Your task to perform on an android device: find photos in the google photos app Image 0: 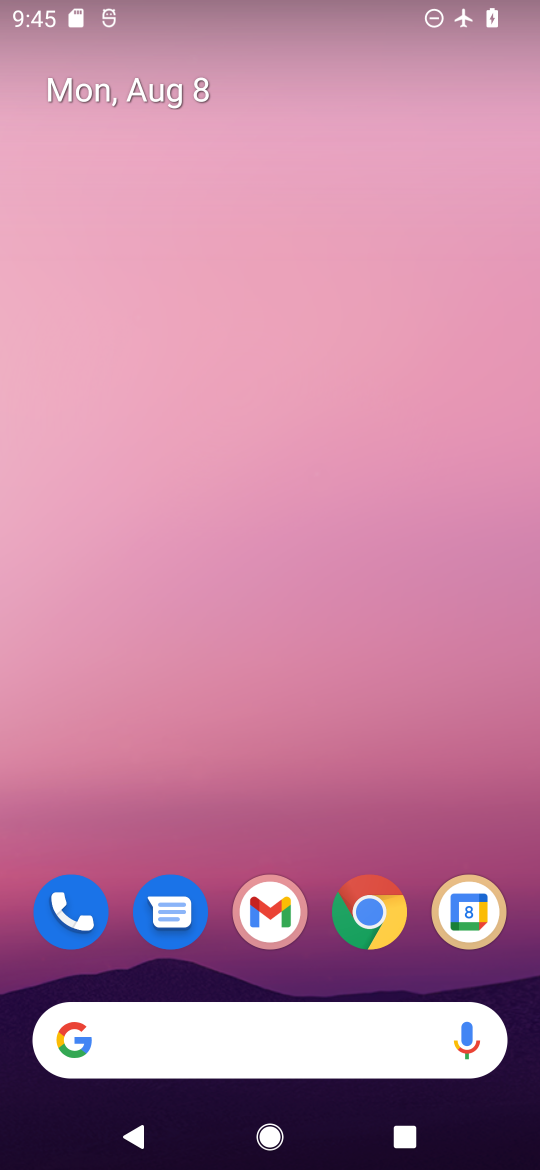
Step 0: drag from (522, 940) to (291, 10)
Your task to perform on an android device: find photos in the google photos app Image 1: 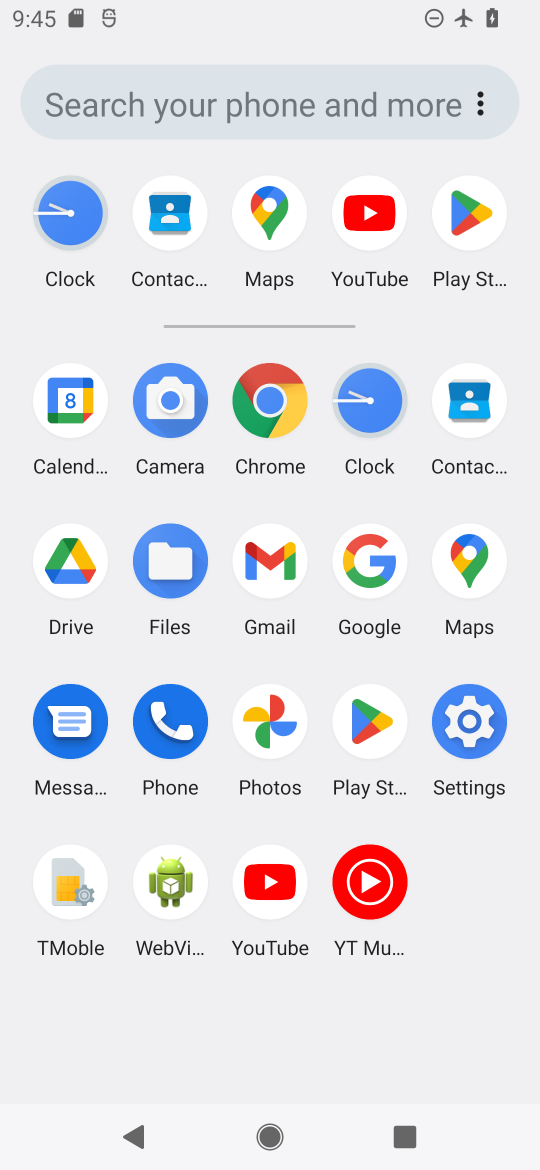
Step 1: click (277, 753)
Your task to perform on an android device: find photos in the google photos app Image 2: 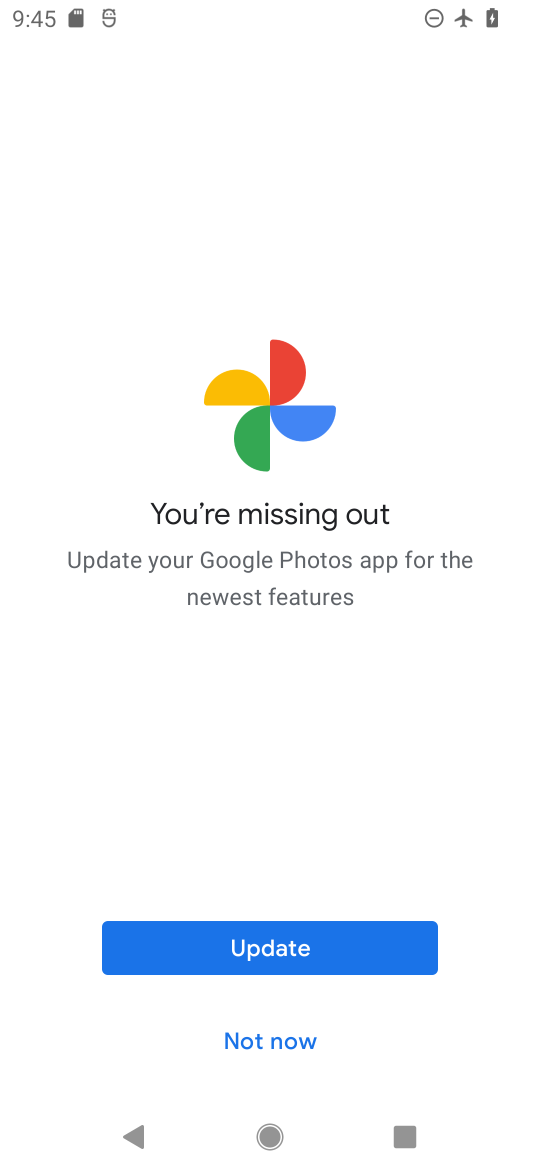
Step 2: task complete